Your task to perform on an android device: Open calendar and show me the second week of next month Image 0: 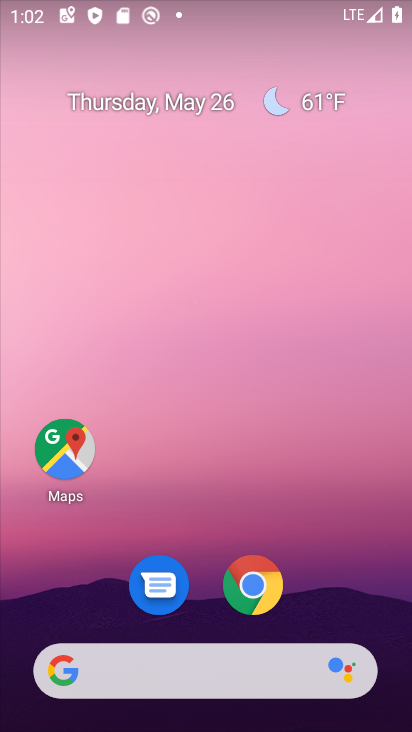
Step 0: drag from (255, 470) to (228, 27)
Your task to perform on an android device: Open calendar and show me the second week of next month Image 1: 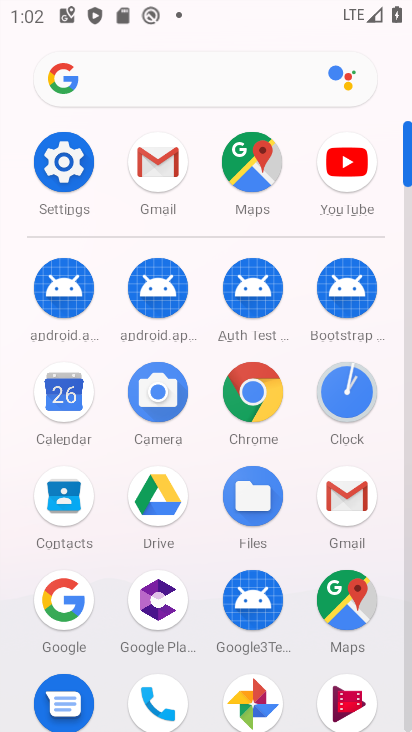
Step 1: click (65, 381)
Your task to perform on an android device: Open calendar and show me the second week of next month Image 2: 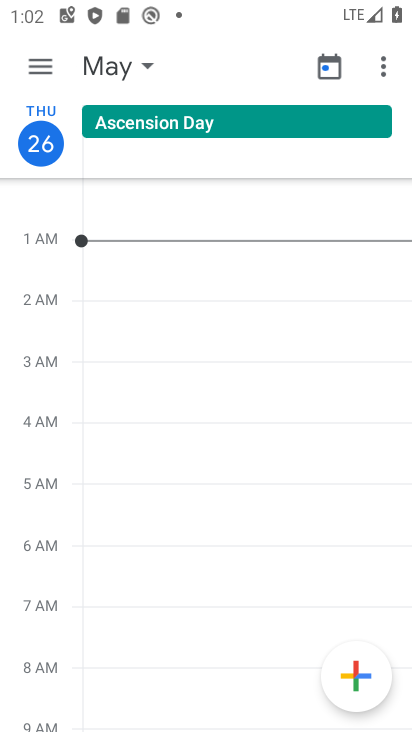
Step 2: click (42, 66)
Your task to perform on an android device: Open calendar and show me the second week of next month Image 3: 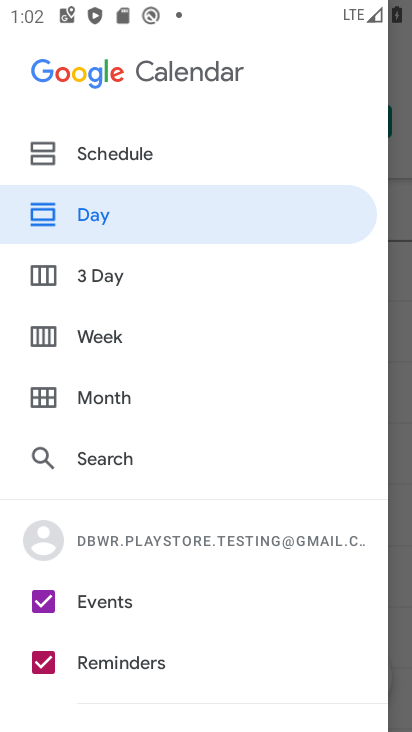
Step 3: click (51, 392)
Your task to perform on an android device: Open calendar and show me the second week of next month Image 4: 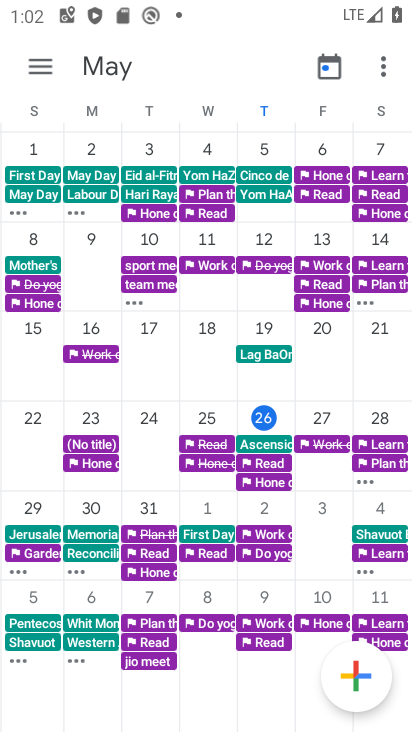
Step 4: drag from (345, 347) to (1, 394)
Your task to perform on an android device: Open calendar and show me the second week of next month Image 5: 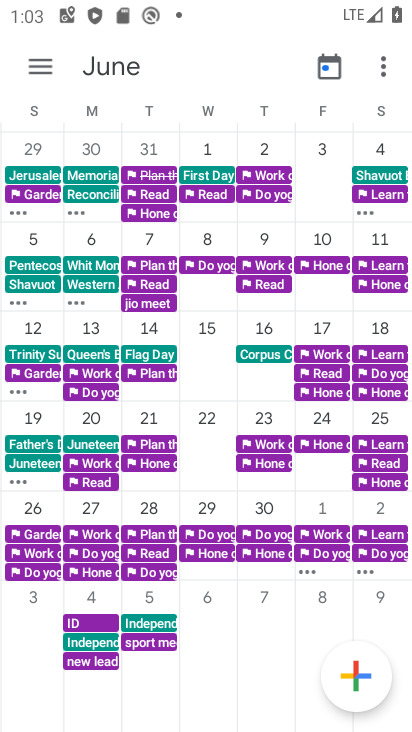
Step 5: click (33, 320)
Your task to perform on an android device: Open calendar and show me the second week of next month Image 6: 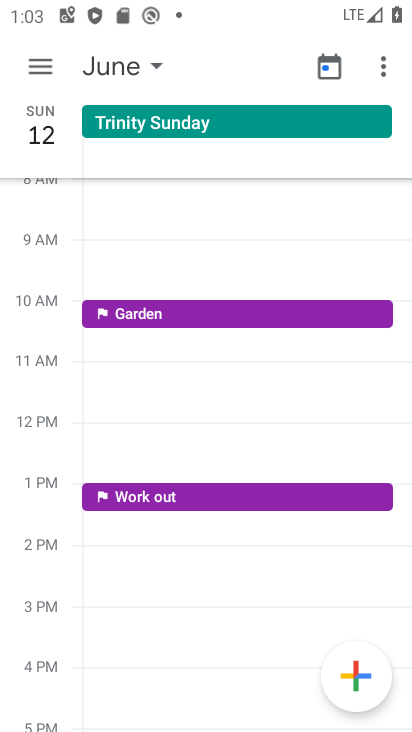
Step 6: click (39, 68)
Your task to perform on an android device: Open calendar and show me the second week of next month Image 7: 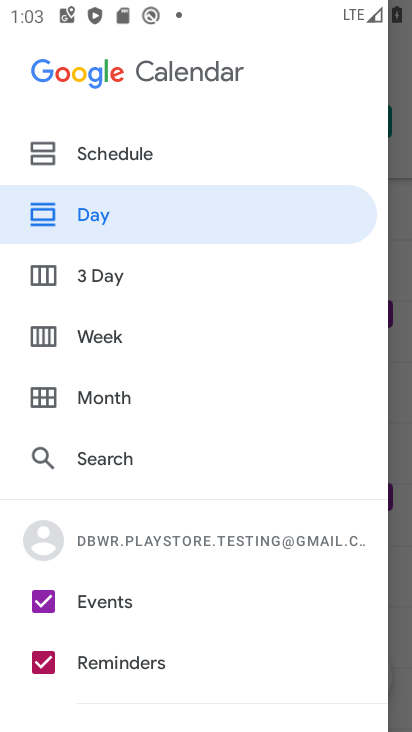
Step 7: click (50, 330)
Your task to perform on an android device: Open calendar and show me the second week of next month Image 8: 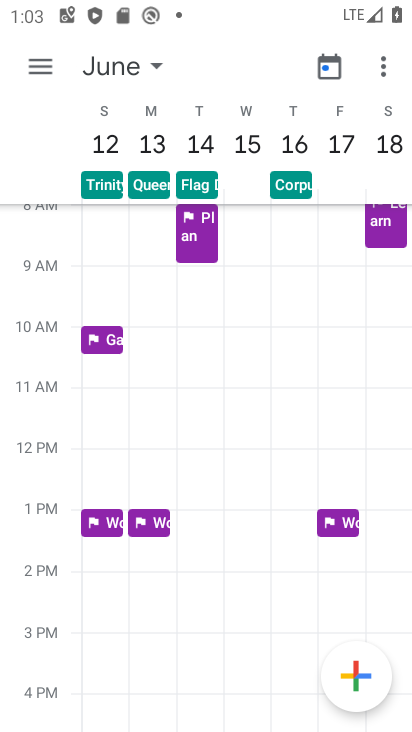
Step 8: task complete